Your task to perform on an android device: Check the news Image 0: 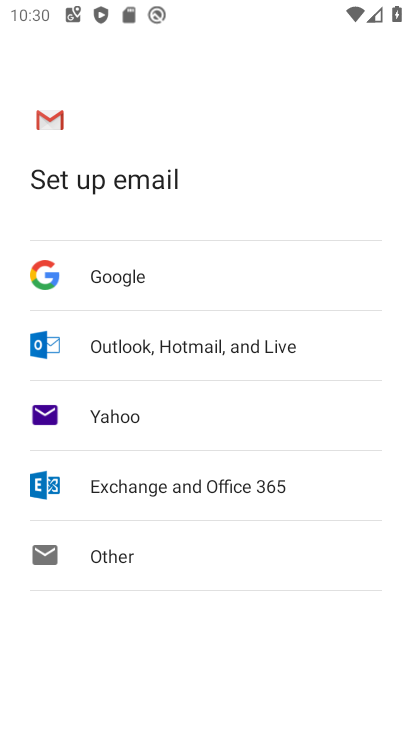
Step 0: press home button
Your task to perform on an android device: Check the news Image 1: 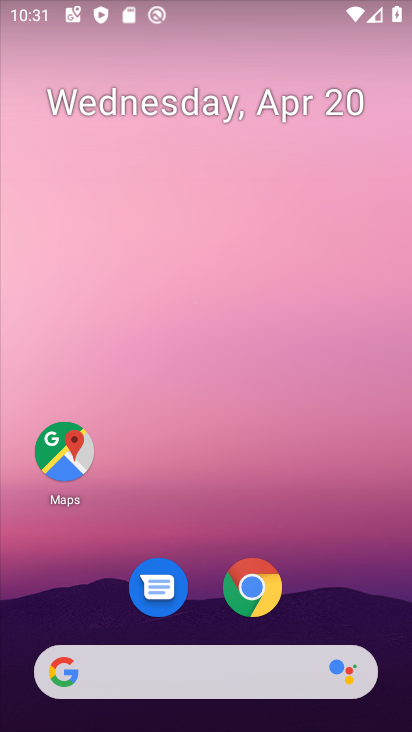
Step 1: task complete